Your task to perform on an android device: Open network settings Image 0: 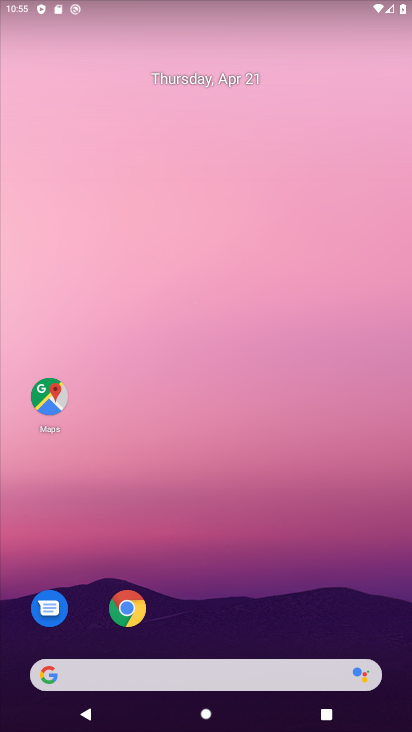
Step 0: drag from (201, 619) to (161, 132)
Your task to perform on an android device: Open network settings Image 1: 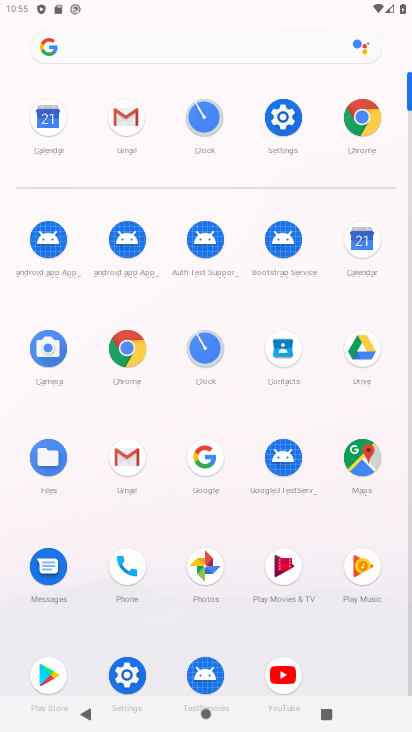
Step 1: click (282, 120)
Your task to perform on an android device: Open network settings Image 2: 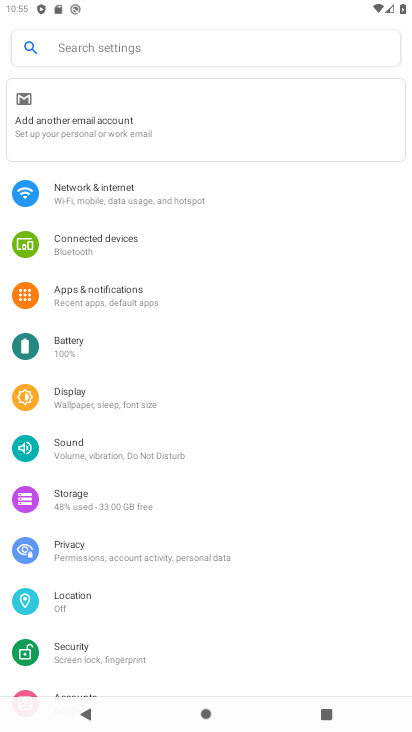
Step 2: click (102, 188)
Your task to perform on an android device: Open network settings Image 3: 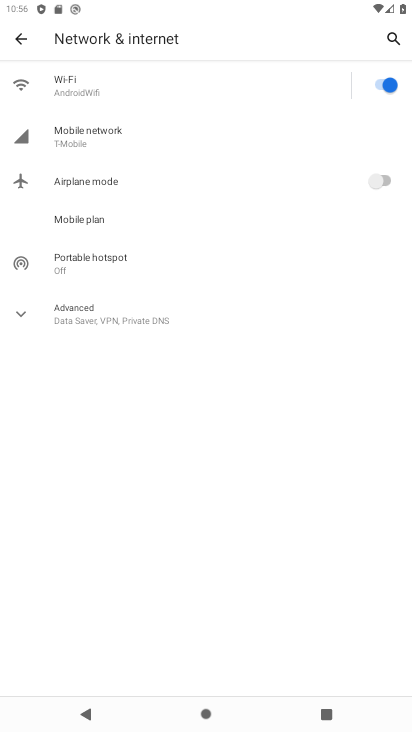
Step 3: task complete